Your task to perform on an android device: toggle javascript in the chrome app Image 0: 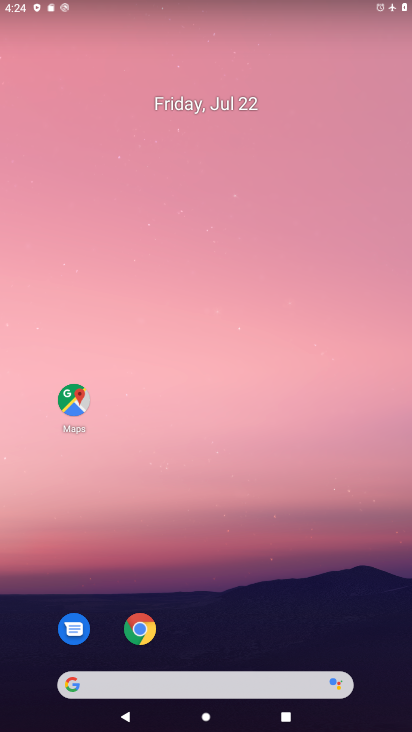
Step 0: drag from (276, 545) to (213, 165)
Your task to perform on an android device: toggle javascript in the chrome app Image 1: 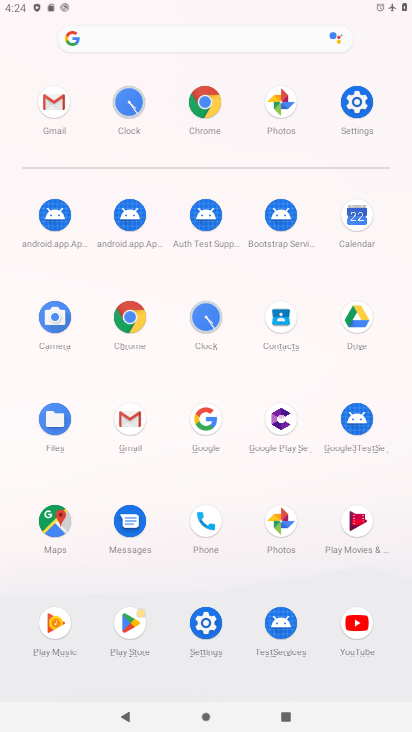
Step 1: click (205, 103)
Your task to perform on an android device: toggle javascript in the chrome app Image 2: 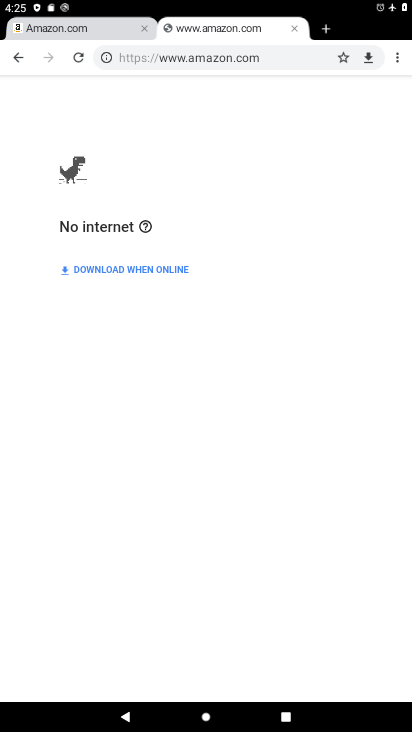
Step 2: drag from (394, 54) to (273, 390)
Your task to perform on an android device: toggle javascript in the chrome app Image 3: 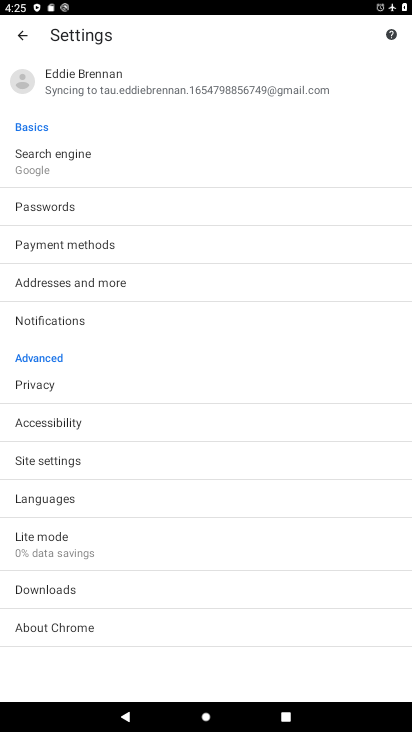
Step 3: click (61, 463)
Your task to perform on an android device: toggle javascript in the chrome app Image 4: 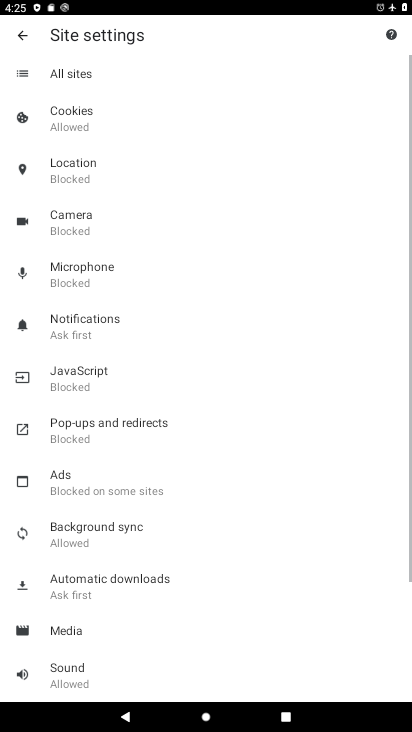
Step 4: click (77, 383)
Your task to perform on an android device: toggle javascript in the chrome app Image 5: 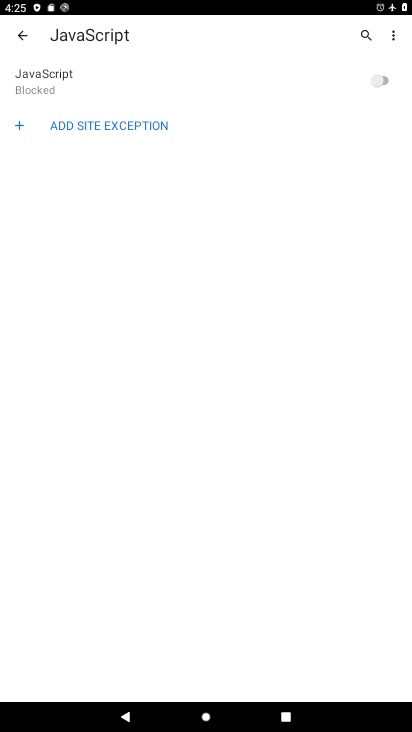
Step 5: click (363, 84)
Your task to perform on an android device: toggle javascript in the chrome app Image 6: 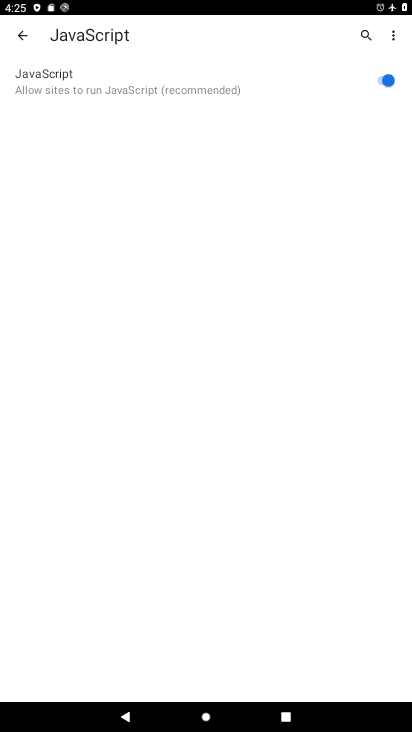
Step 6: task complete